Your task to perform on an android device: allow cookies in the chrome app Image 0: 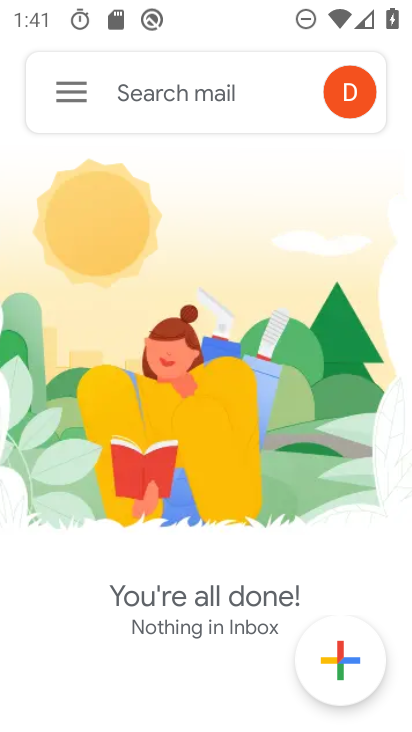
Step 0: press home button
Your task to perform on an android device: allow cookies in the chrome app Image 1: 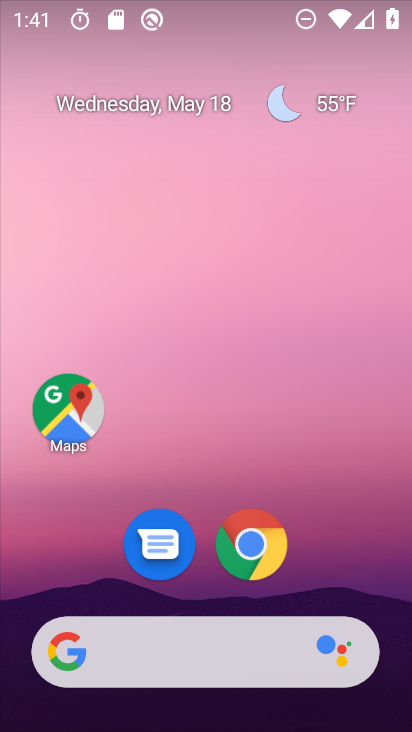
Step 1: click (249, 539)
Your task to perform on an android device: allow cookies in the chrome app Image 2: 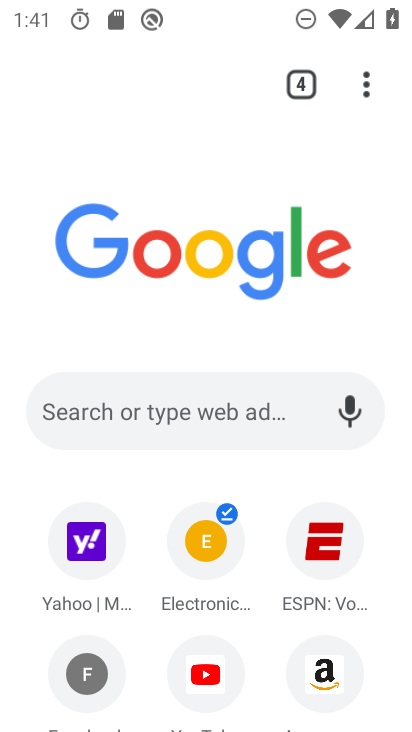
Step 2: click (375, 74)
Your task to perform on an android device: allow cookies in the chrome app Image 3: 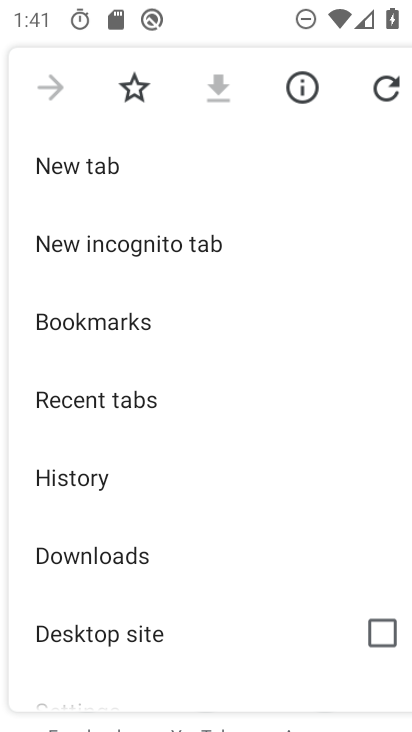
Step 3: drag from (224, 635) to (214, 274)
Your task to perform on an android device: allow cookies in the chrome app Image 4: 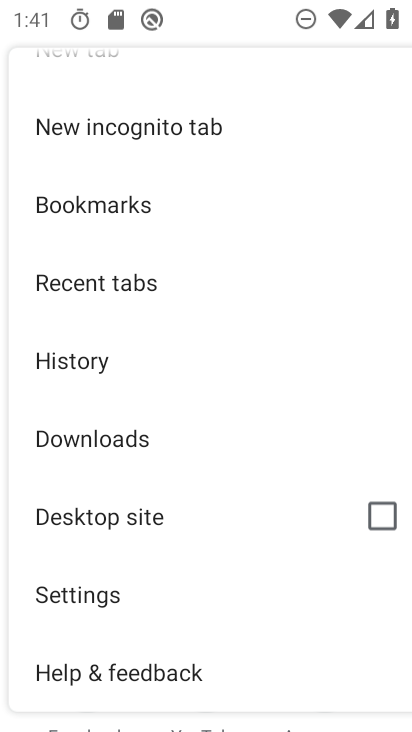
Step 4: click (95, 588)
Your task to perform on an android device: allow cookies in the chrome app Image 5: 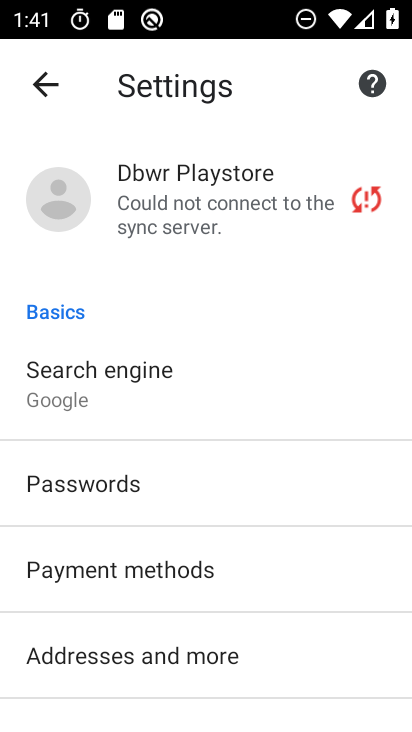
Step 5: drag from (248, 583) to (232, 265)
Your task to perform on an android device: allow cookies in the chrome app Image 6: 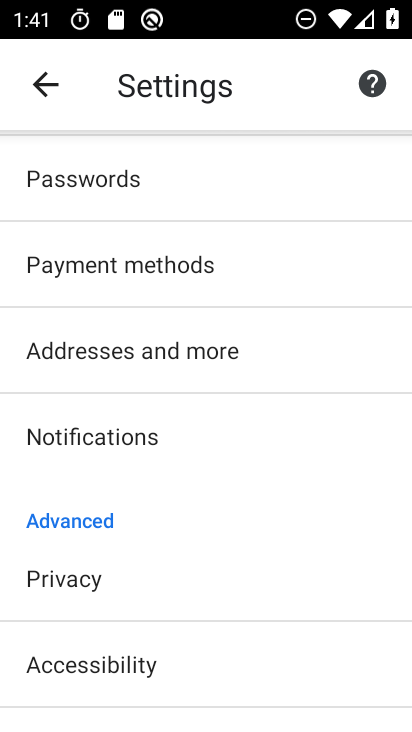
Step 6: drag from (249, 631) to (258, 331)
Your task to perform on an android device: allow cookies in the chrome app Image 7: 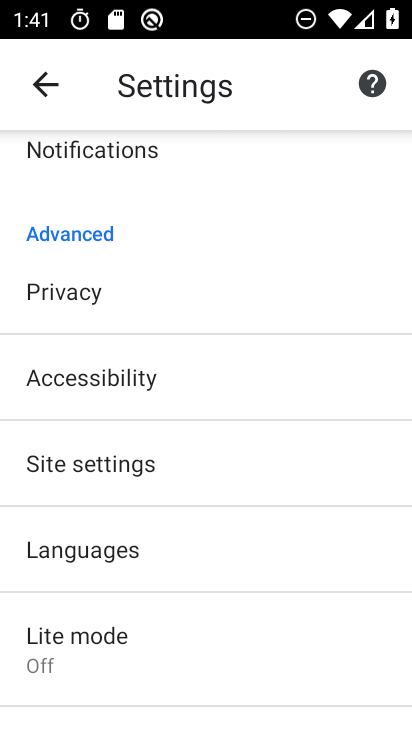
Step 7: click (156, 455)
Your task to perform on an android device: allow cookies in the chrome app Image 8: 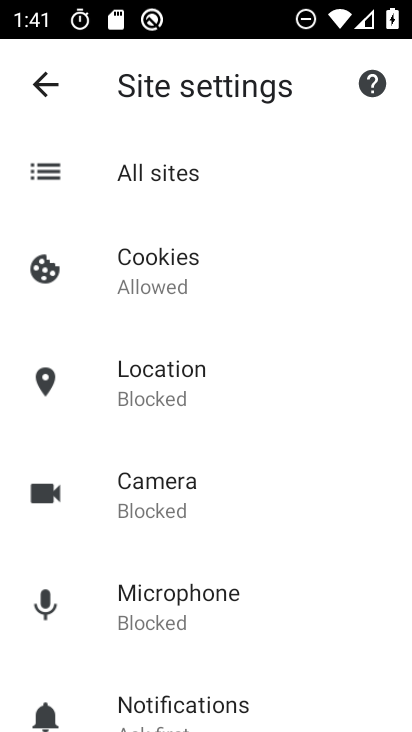
Step 8: click (182, 258)
Your task to perform on an android device: allow cookies in the chrome app Image 9: 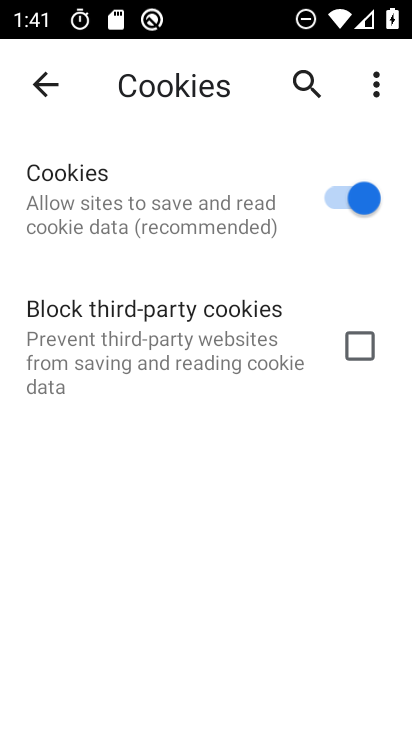
Step 9: task complete